Your task to perform on an android device: turn off airplane mode Image 0: 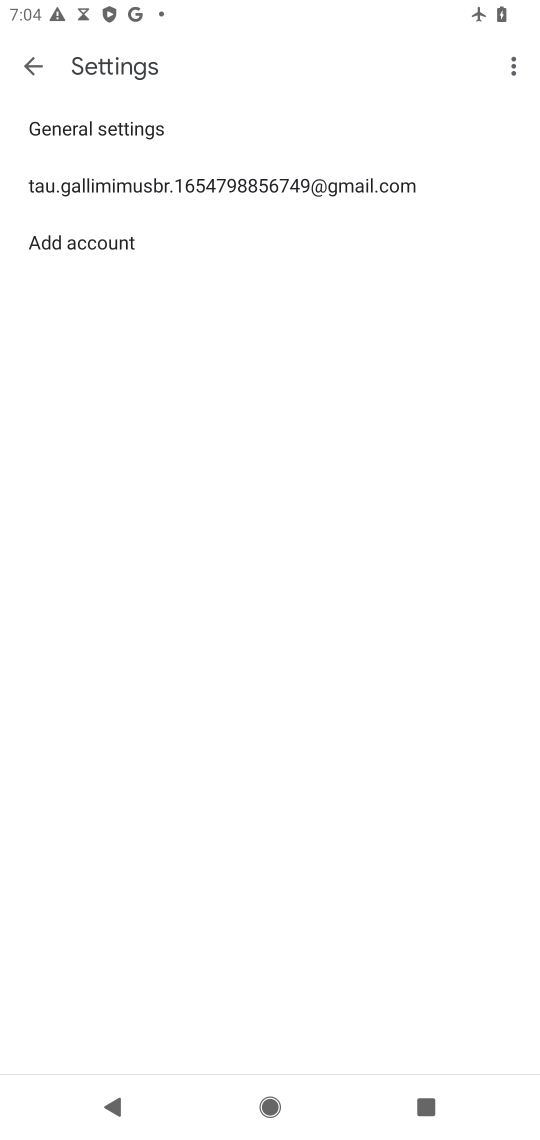
Step 0: press home button
Your task to perform on an android device: turn off airplane mode Image 1: 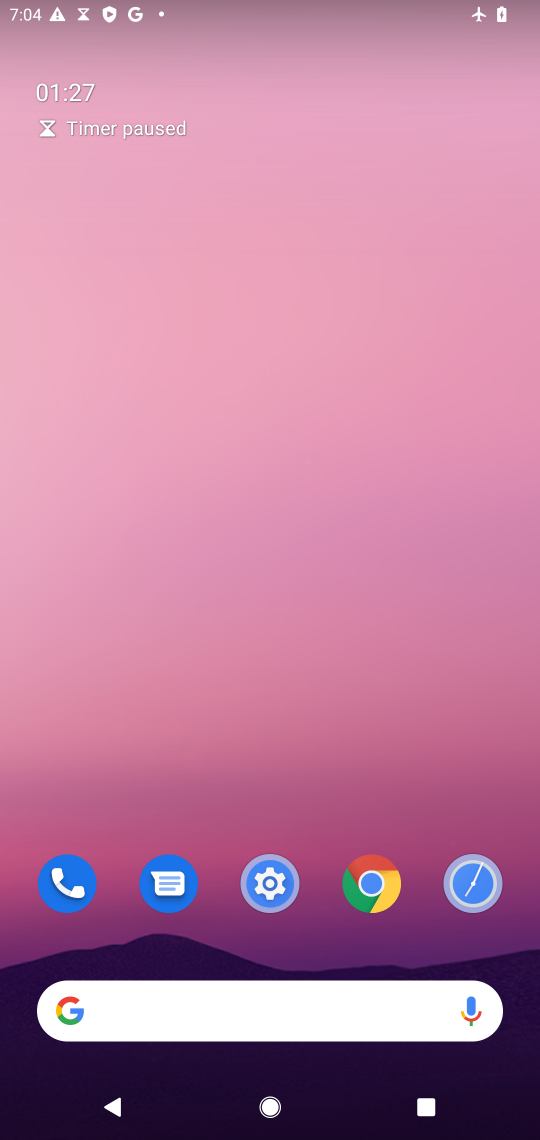
Step 1: drag from (177, 1017) to (281, 292)
Your task to perform on an android device: turn off airplane mode Image 2: 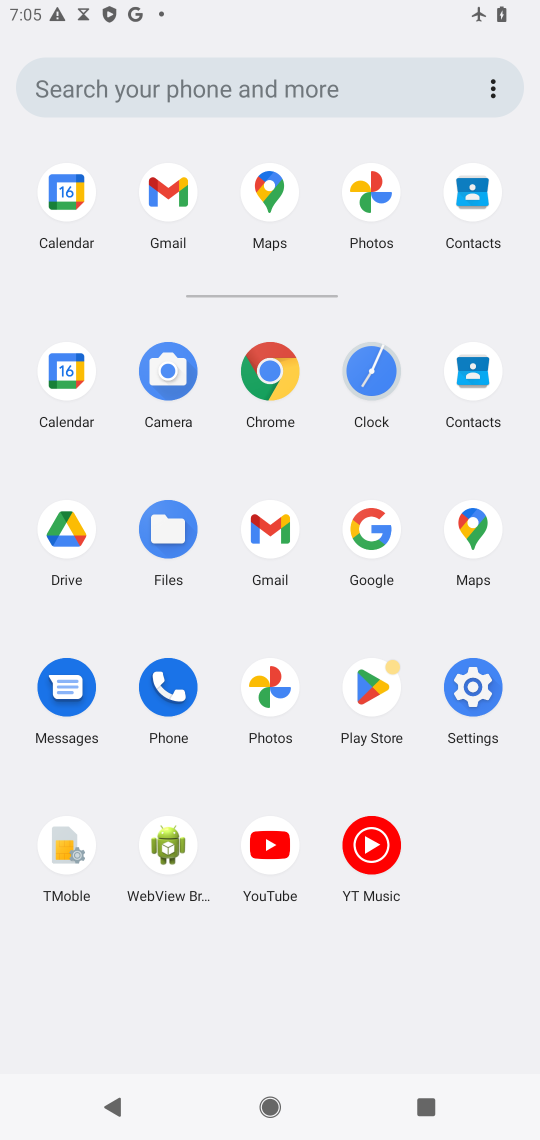
Step 2: click (473, 691)
Your task to perform on an android device: turn off airplane mode Image 3: 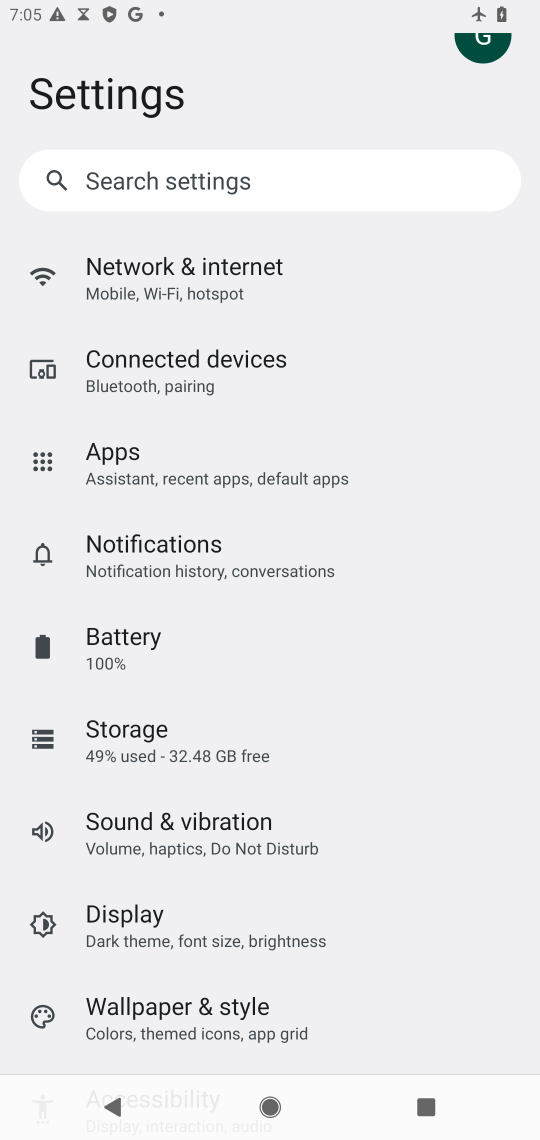
Step 3: click (153, 276)
Your task to perform on an android device: turn off airplane mode Image 4: 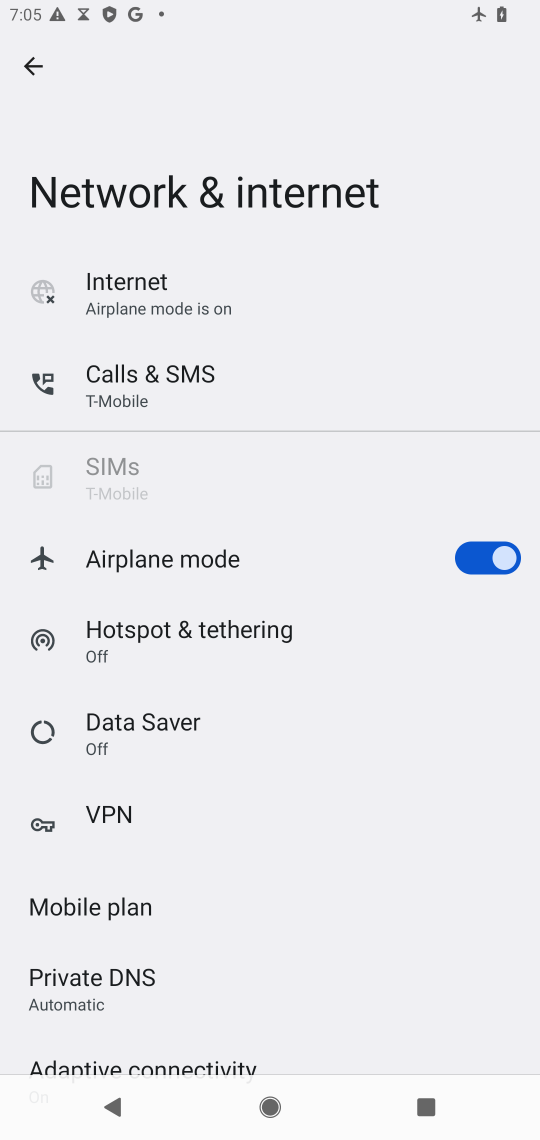
Step 4: click (461, 566)
Your task to perform on an android device: turn off airplane mode Image 5: 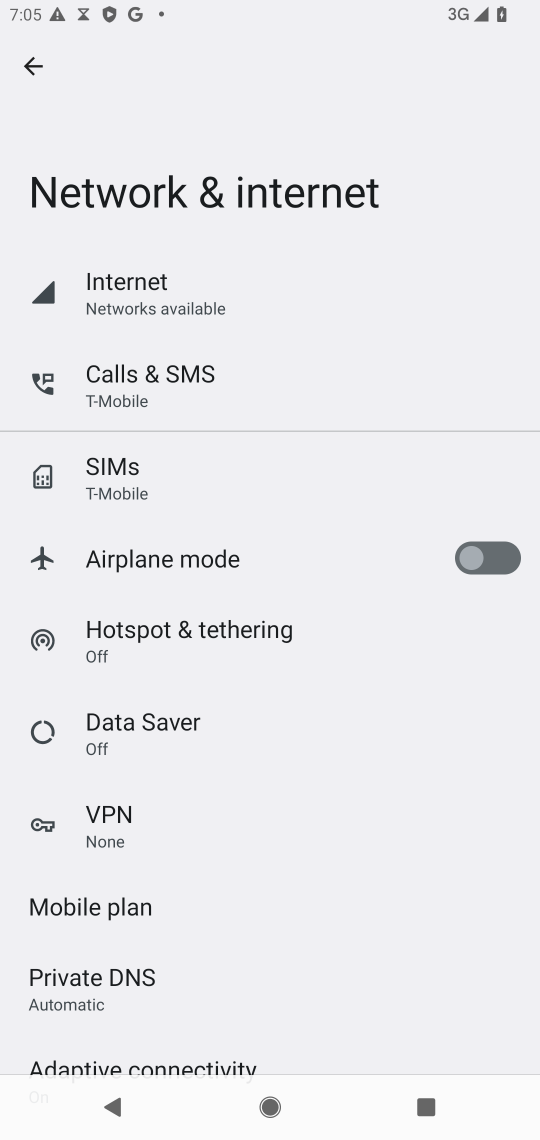
Step 5: task complete